Your task to perform on an android device: What is the speed of a skateboard? Image 0: 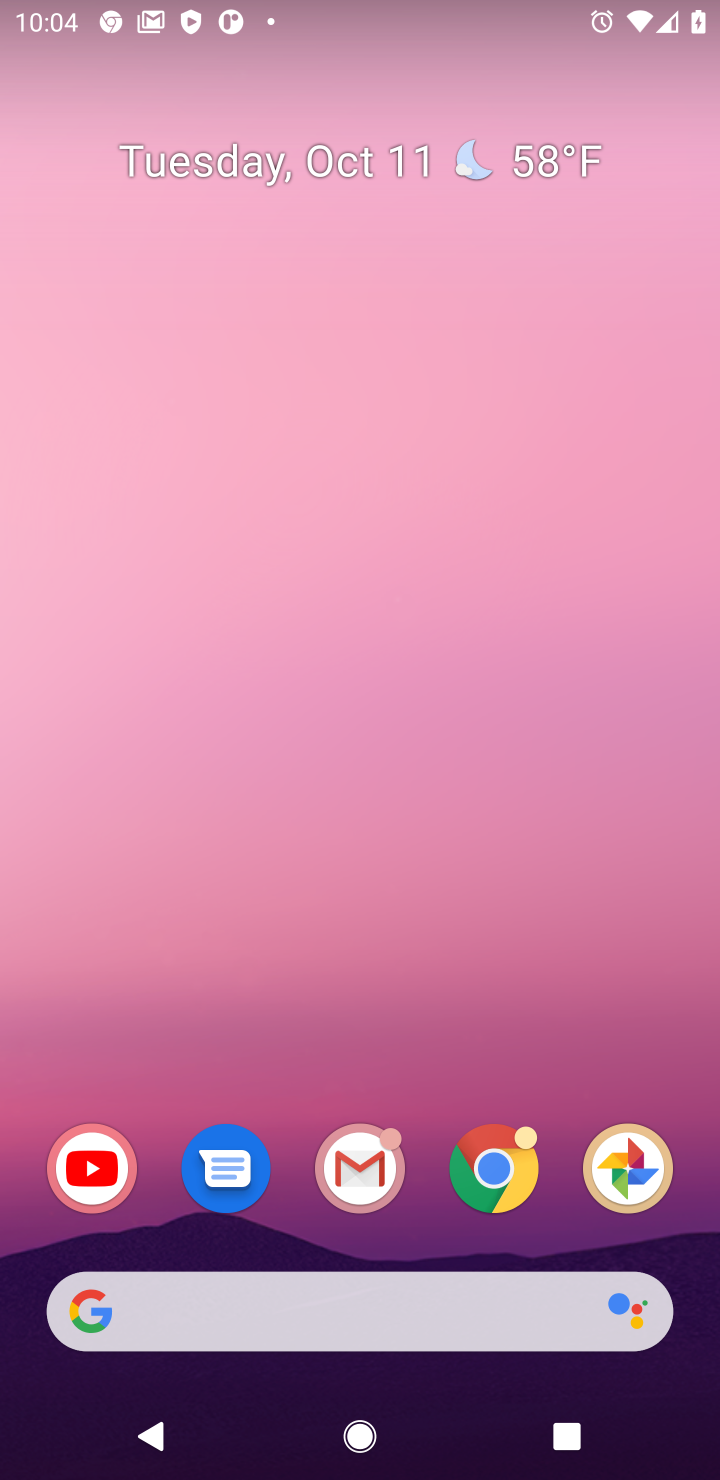
Step 0: click (495, 1165)
Your task to perform on an android device: What is the speed of a skateboard? Image 1: 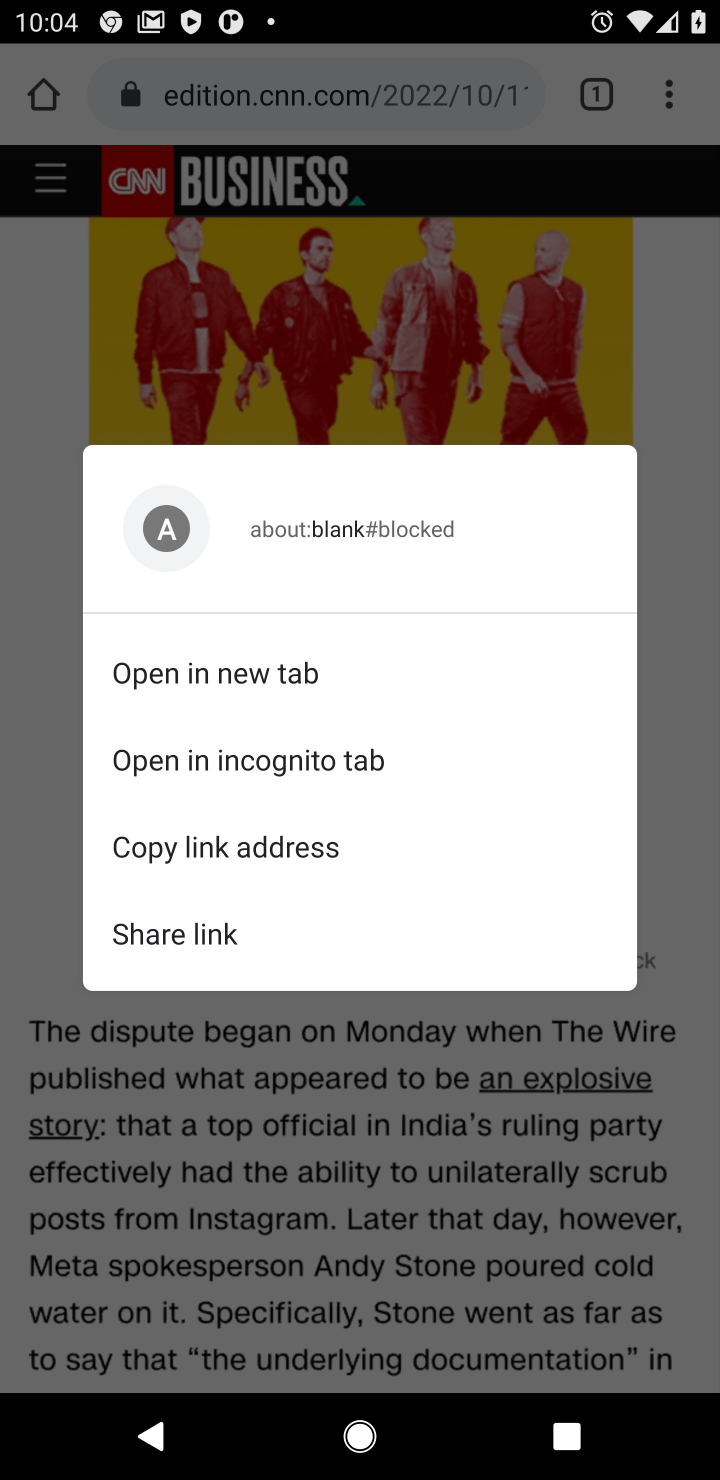
Step 1: click (380, 101)
Your task to perform on an android device: What is the speed of a skateboard? Image 2: 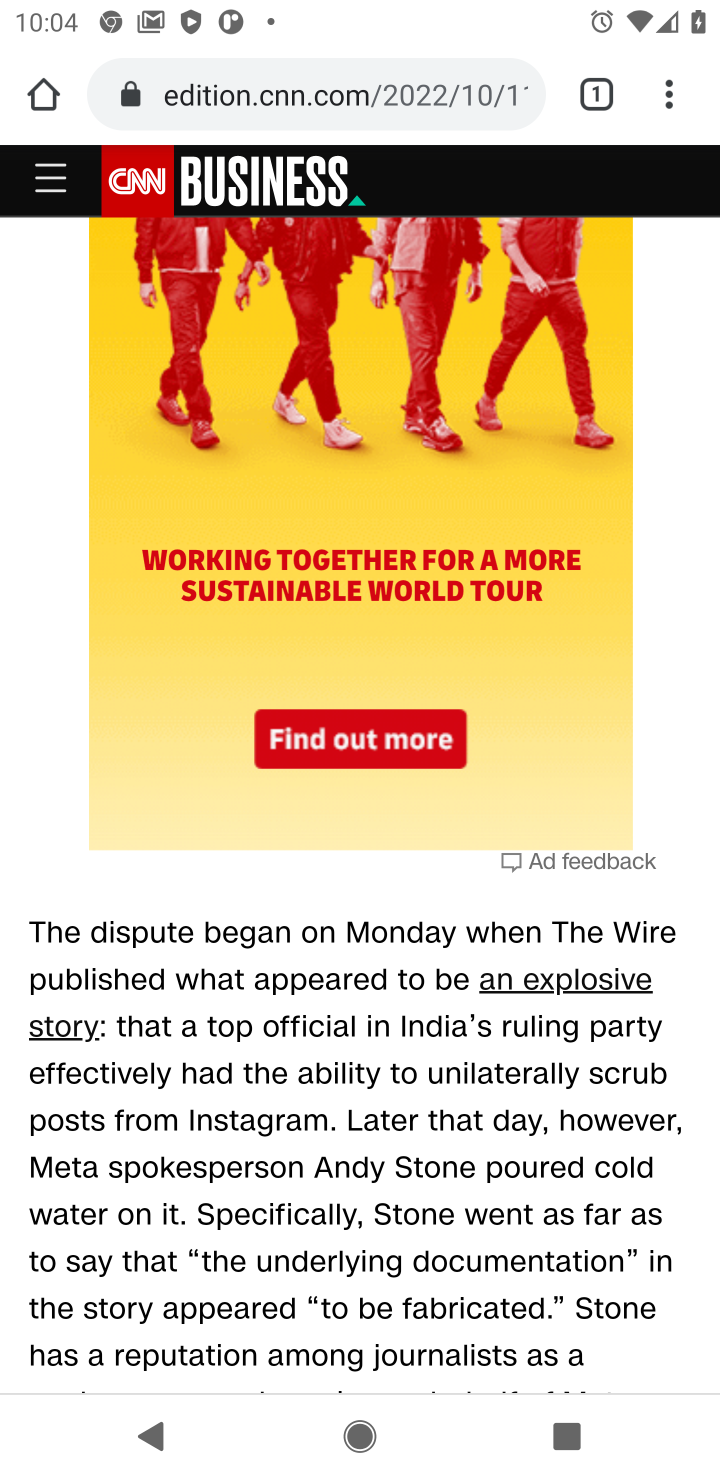
Step 2: click (335, 81)
Your task to perform on an android device: What is the speed of a skateboard? Image 3: 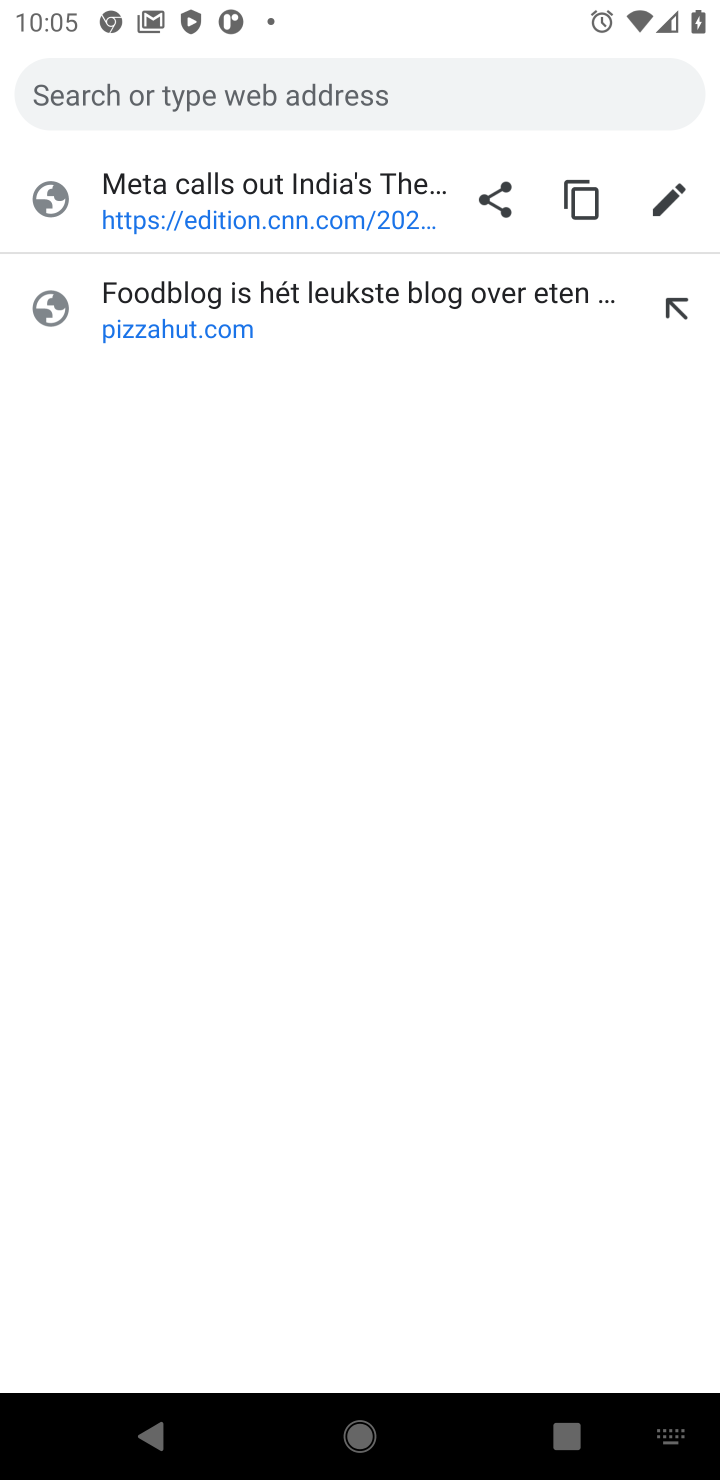
Step 3: type "speed of stakeboard"
Your task to perform on an android device: What is the speed of a skateboard? Image 4: 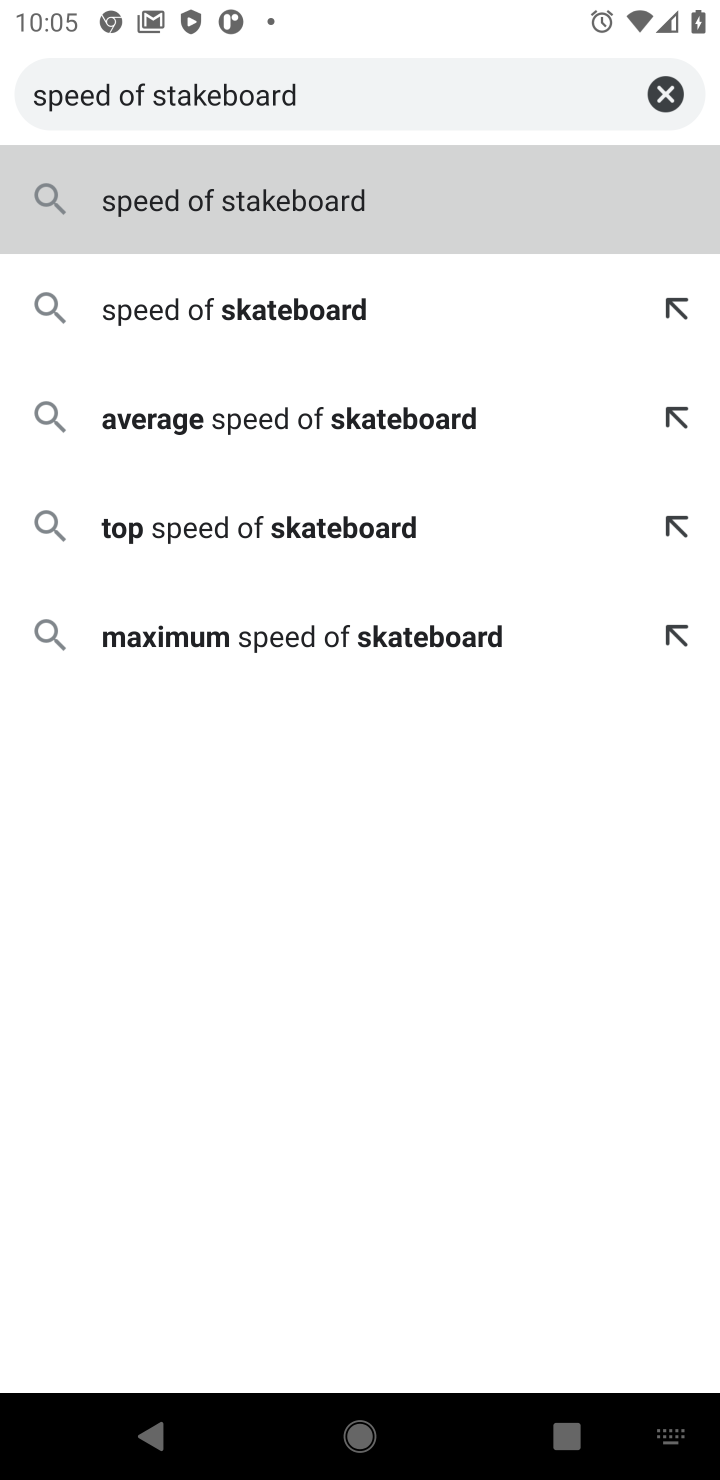
Step 4: type ""
Your task to perform on an android device: What is the speed of a skateboard? Image 5: 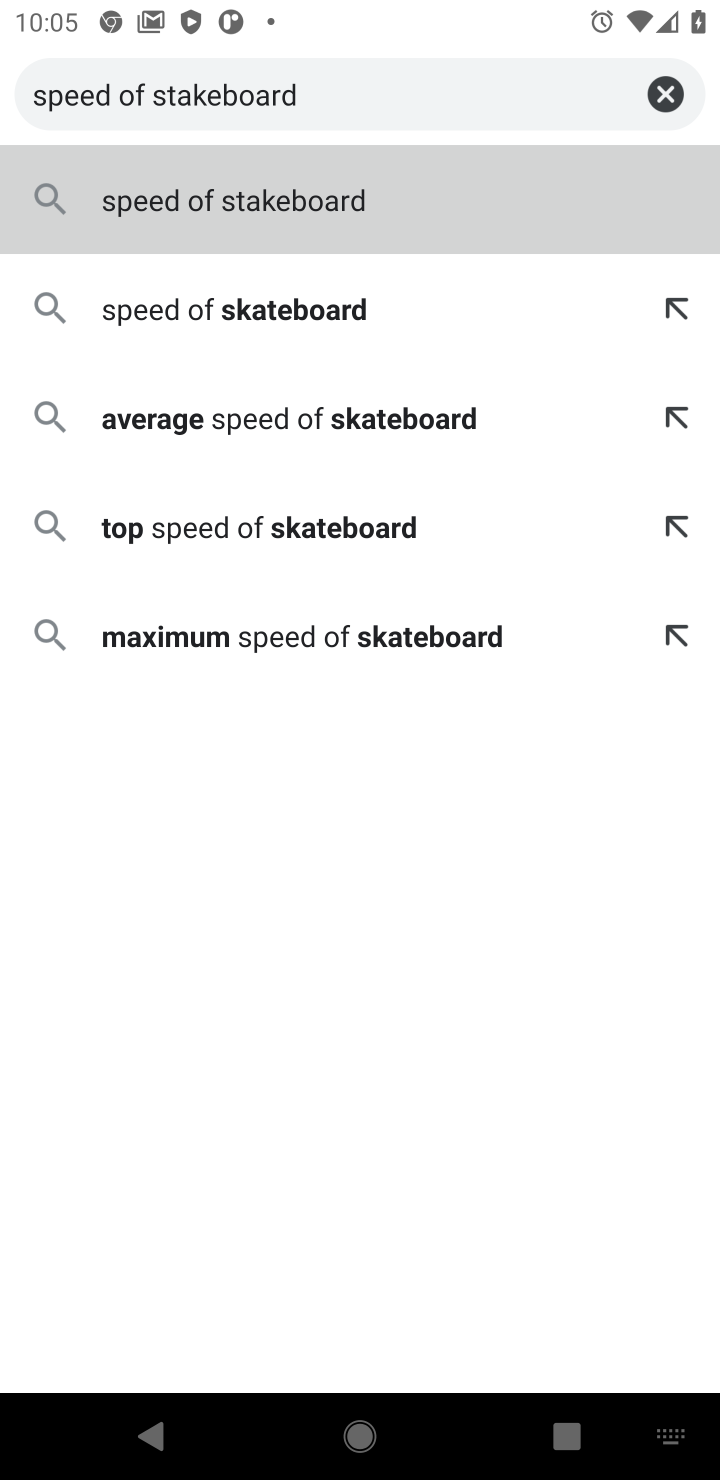
Step 5: click (262, 314)
Your task to perform on an android device: What is the speed of a skateboard? Image 6: 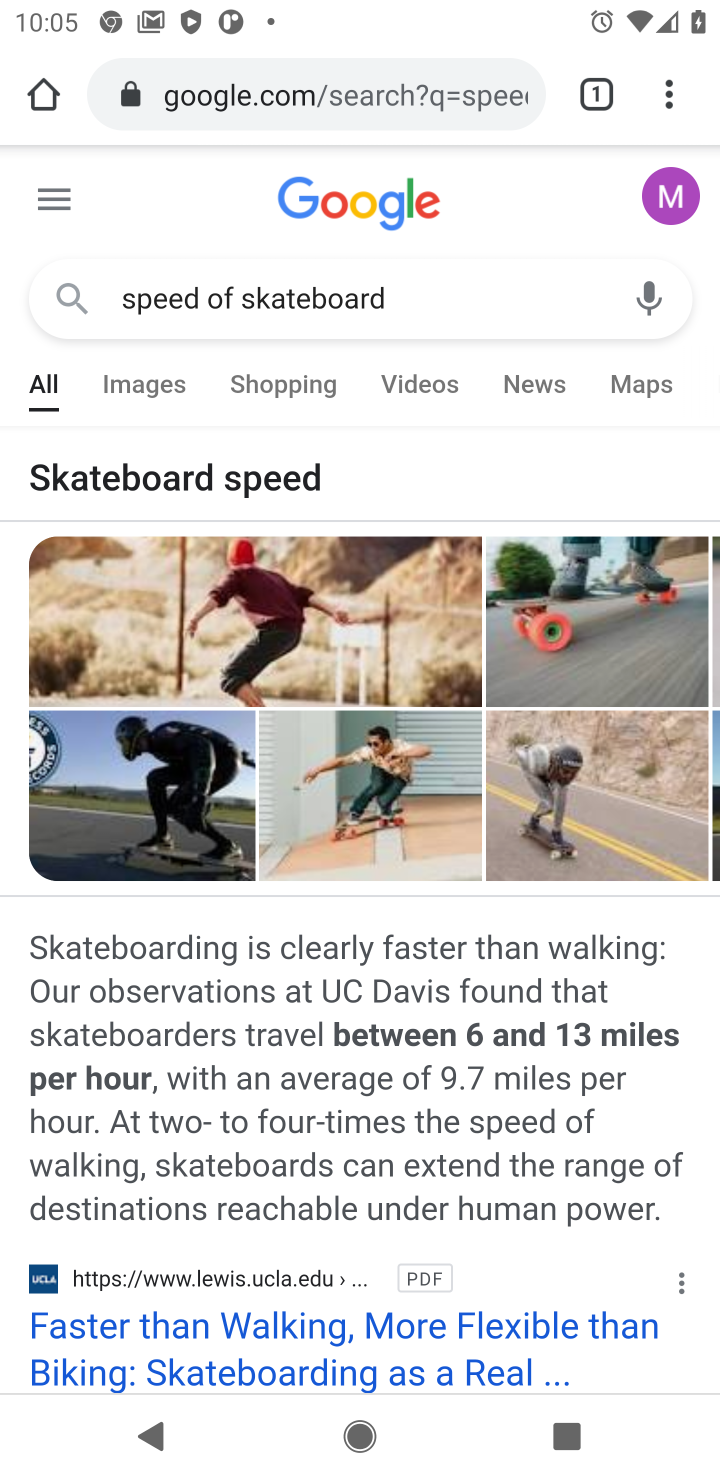
Step 6: drag from (379, 820) to (469, 373)
Your task to perform on an android device: What is the speed of a skateboard? Image 7: 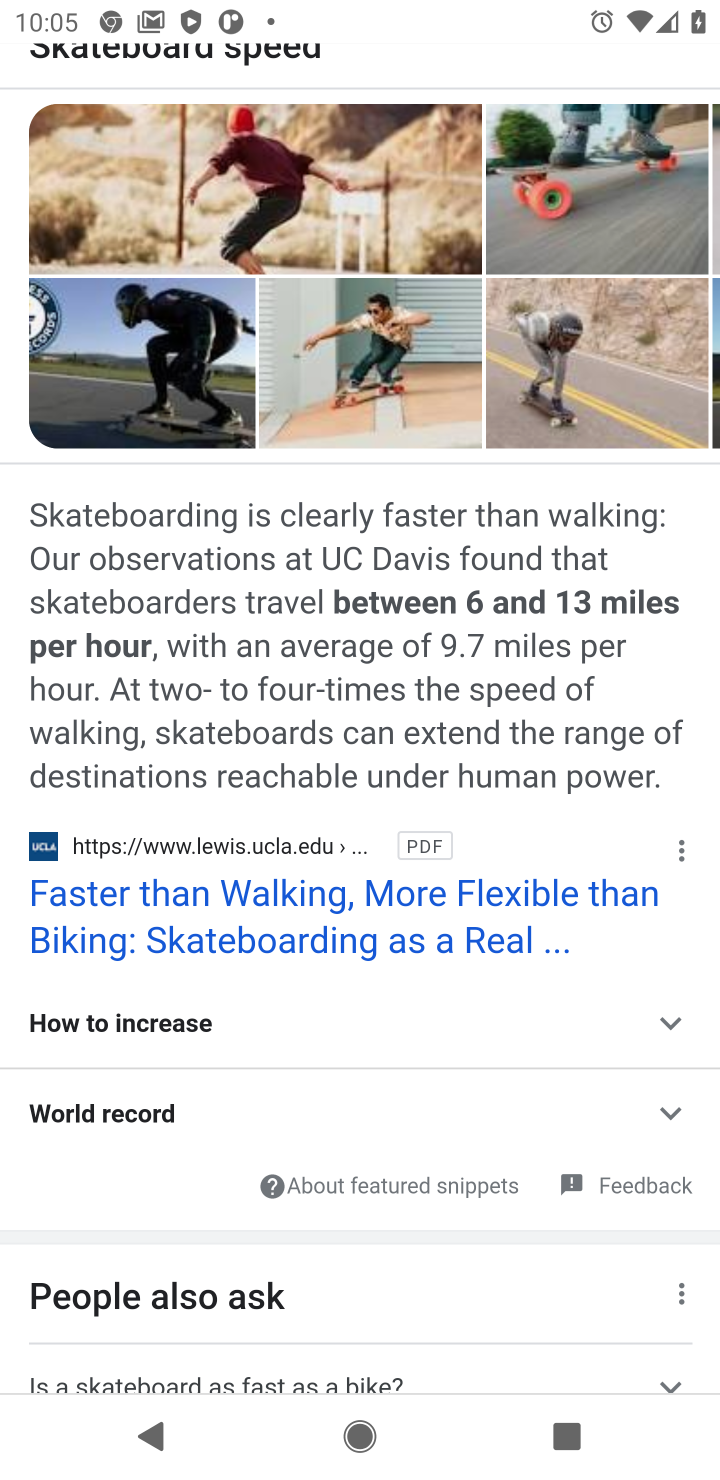
Step 7: drag from (375, 1036) to (607, 250)
Your task to perform on an android device: What is the speed of a skateboard? Image 8: 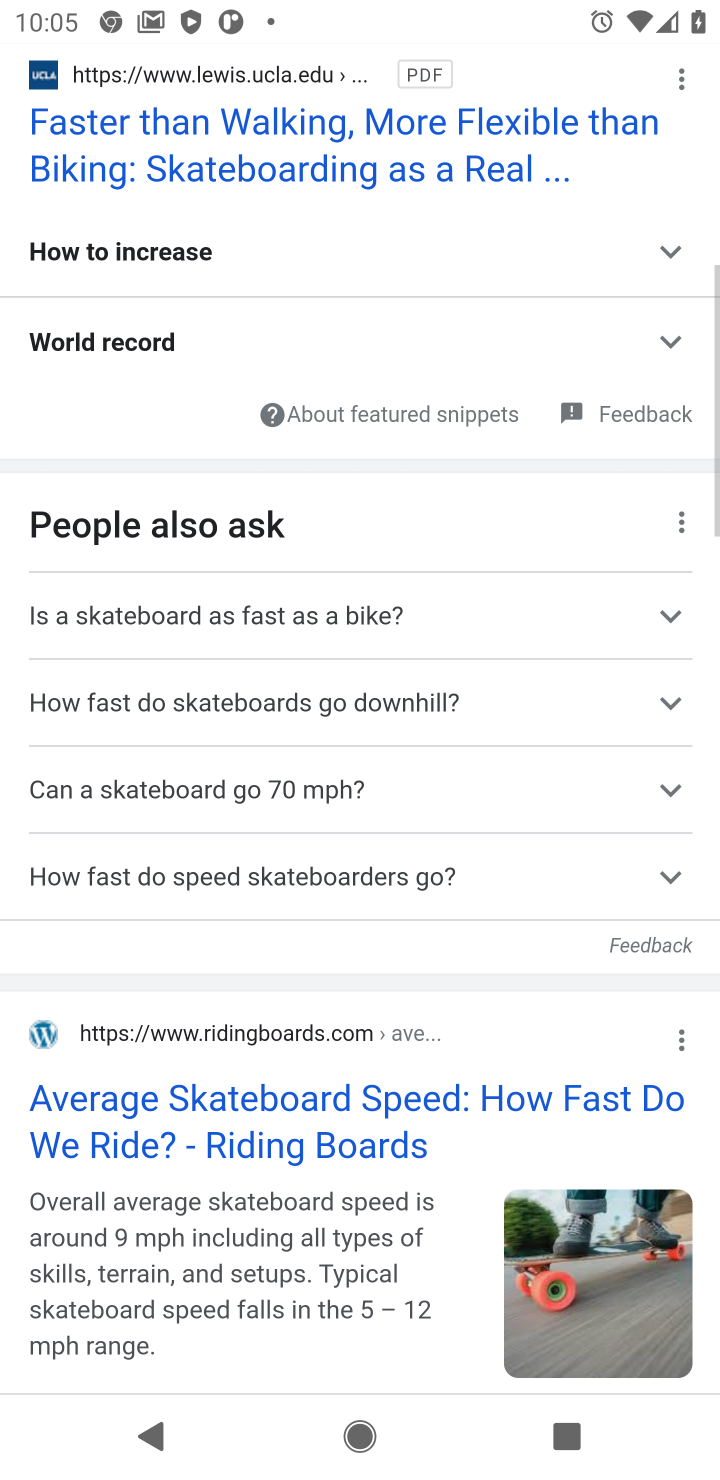
Step 8: drag from (401, 1037) to (505, 425)
Your task to perform on an android device: What is the speed of a skateboard? Image 9: 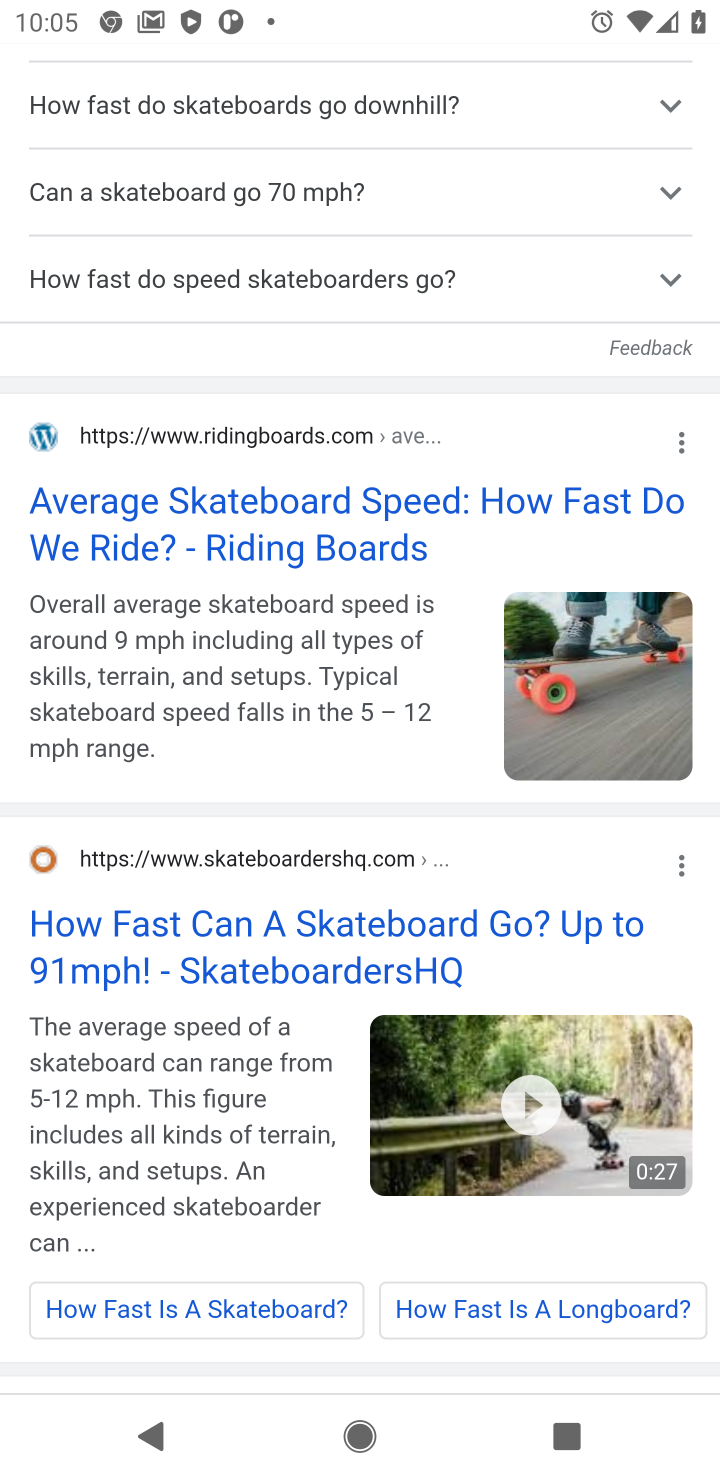
Step 9: click (410, 924)
Your task to perform on an android device: What is the speed of a skateboard? Image 10: 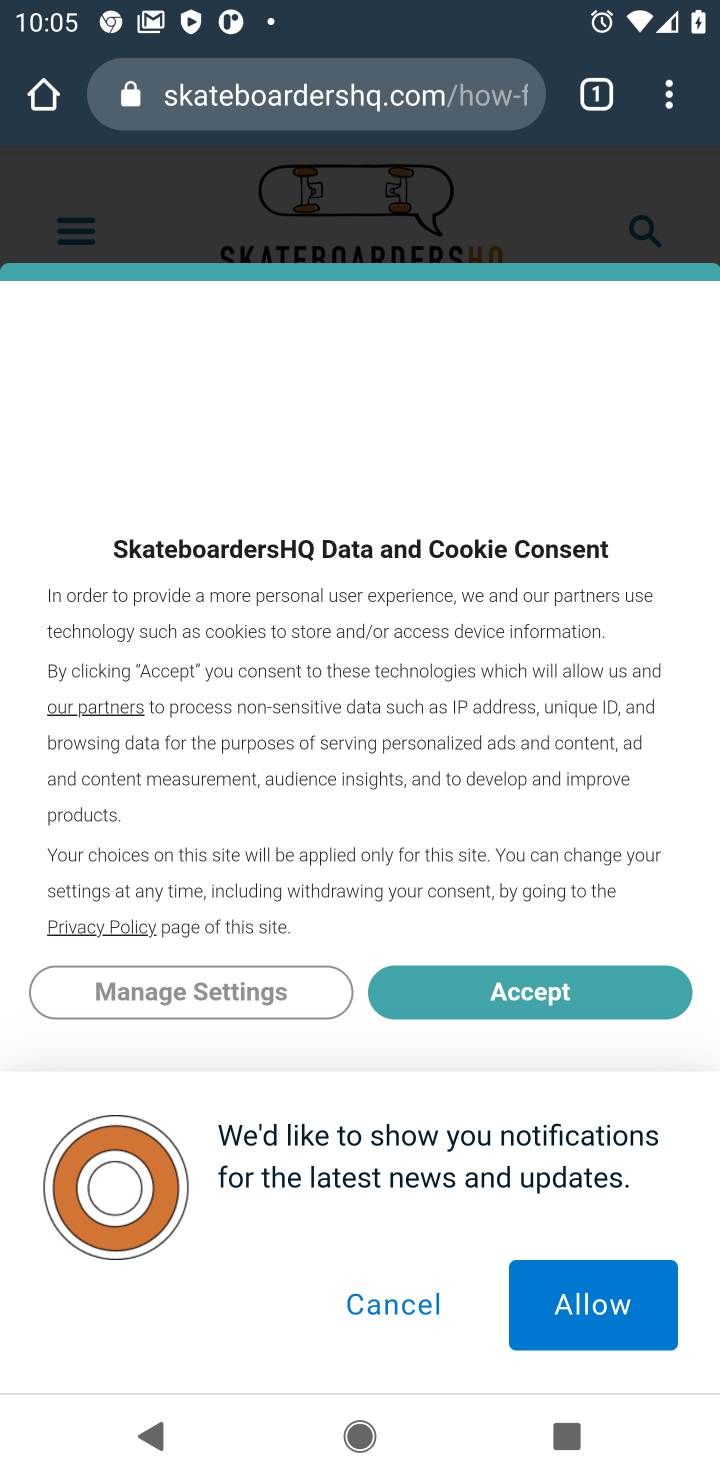
Step 10: click (463, 995)
Your task to perform on an android device: What is the speed of a skateboard? Image 11: 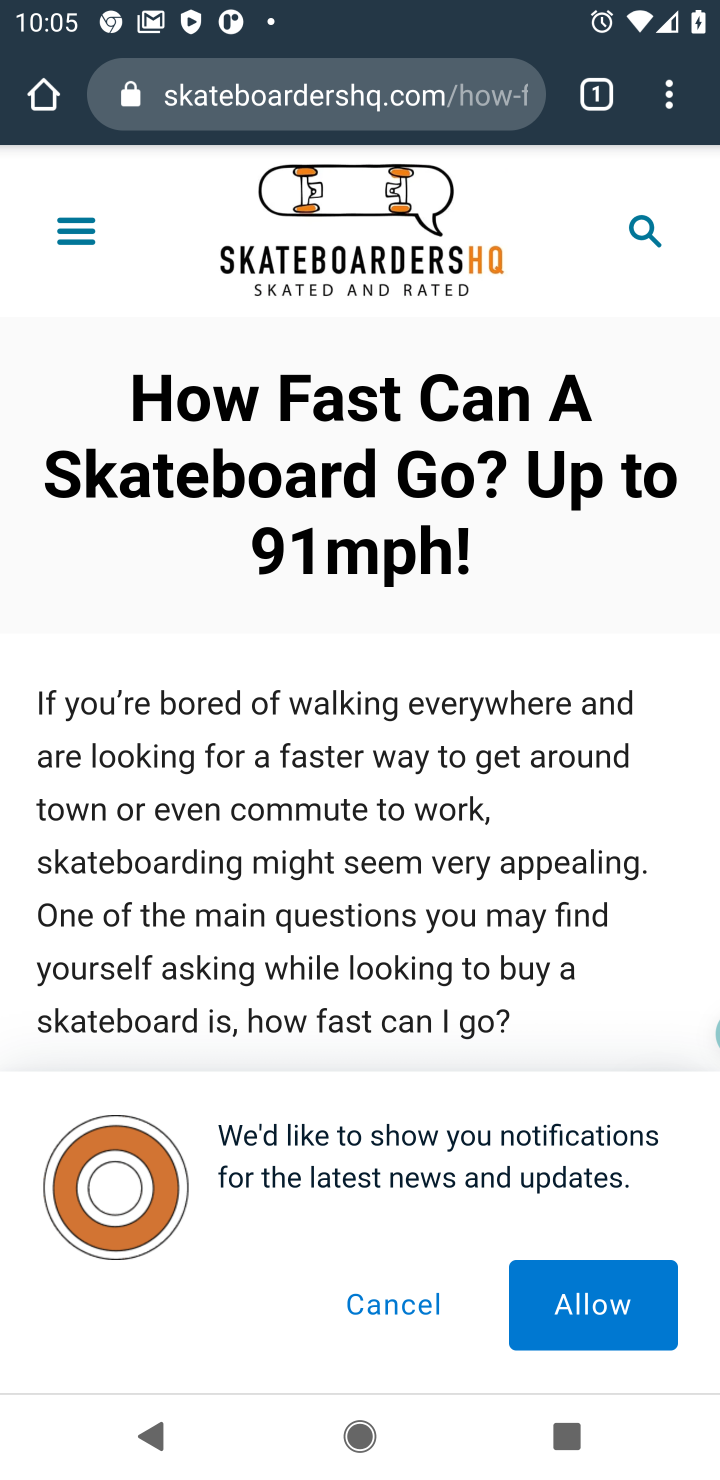
Step 11: click (411, 1312)
Your task to perform on an android device: What is the speed of a skateboard? Image 12: 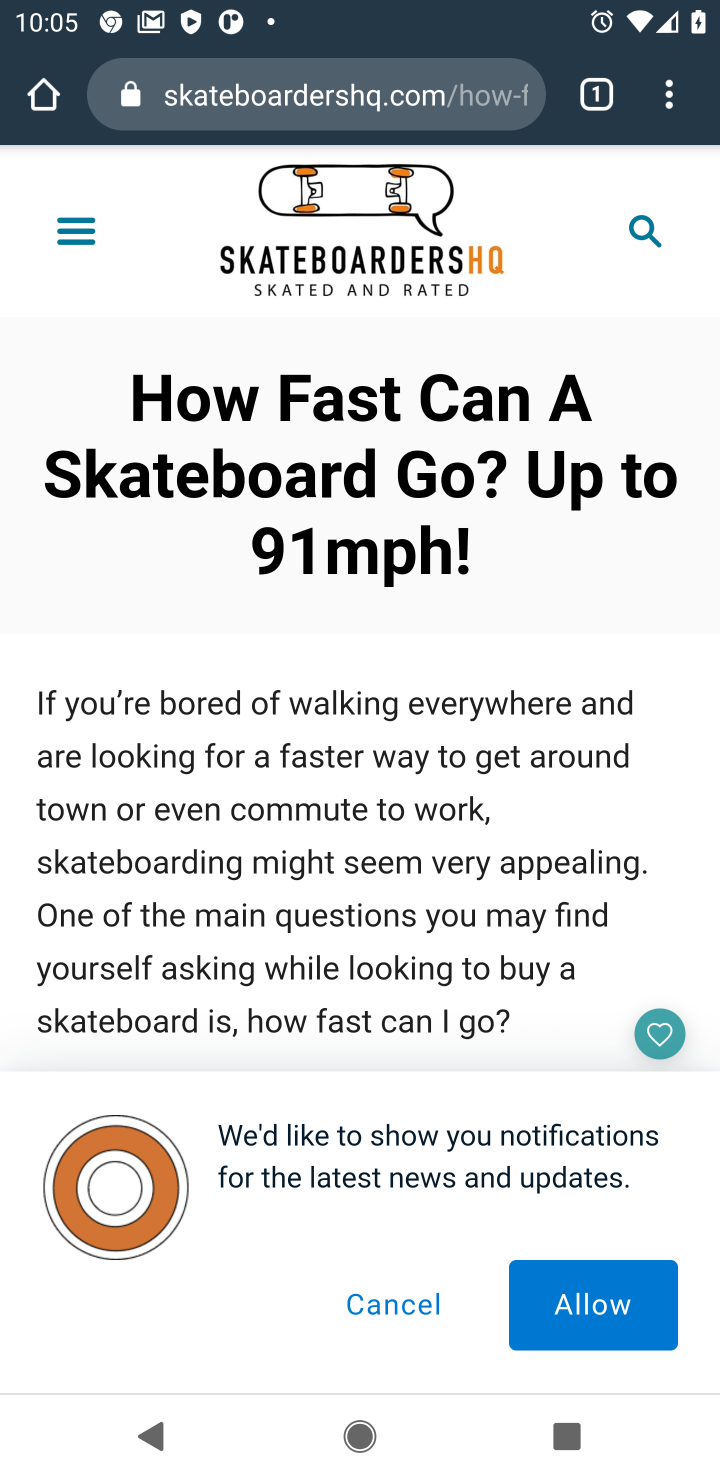
Step 12: task complete